Your task to perform on an android device: What's the weather today? Image 0: 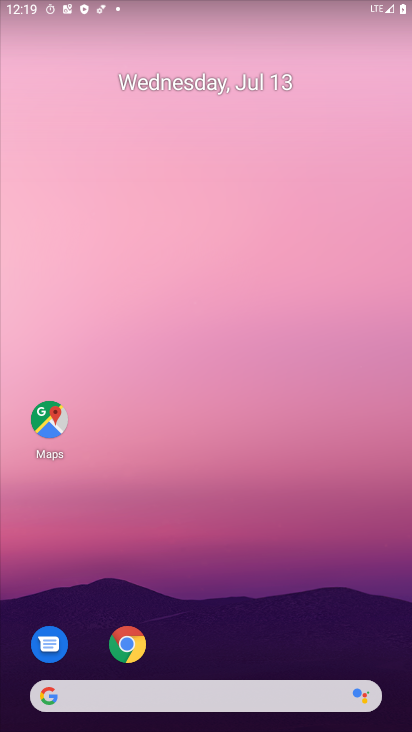
Step 0: drag from (200, 630) to (257, 93)
Your task to perform on an android device: What's the weather today? Image 1: 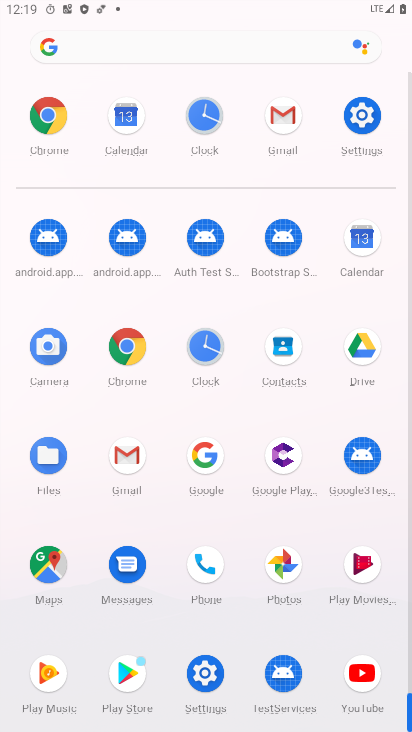
Step 1: click (206, 456)
Your task to perform on an android device: What's the weather today? Image 2: 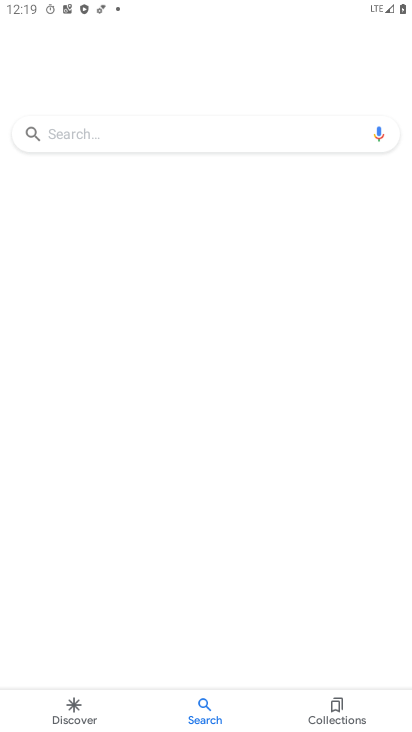
Step 2: click (148, 128)
Your task to perform on an android device: What's the weather today? Image 3: 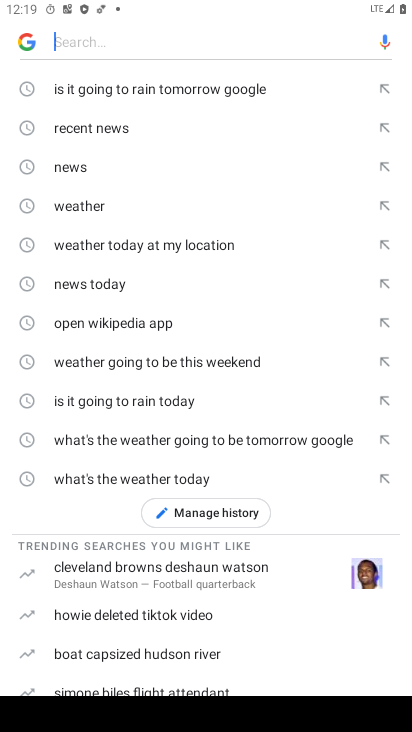
Step 3: click (173, 481)
Your task to perform on an android device: What's the weather today? Image 4: 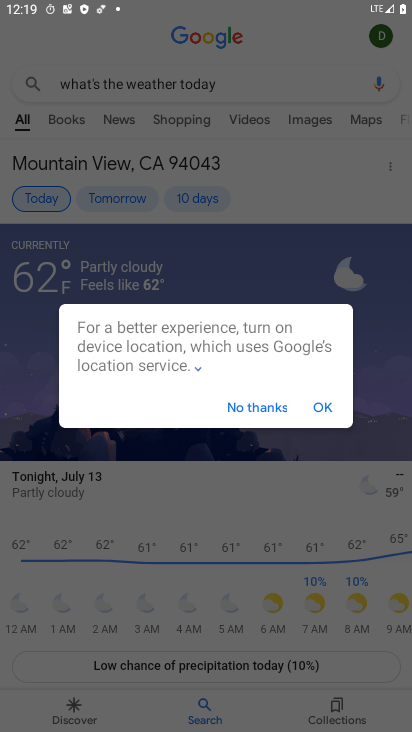
Step 4: task complete